Your task to perform on an android device: turn off notifications settings in the gmail app Image 0: 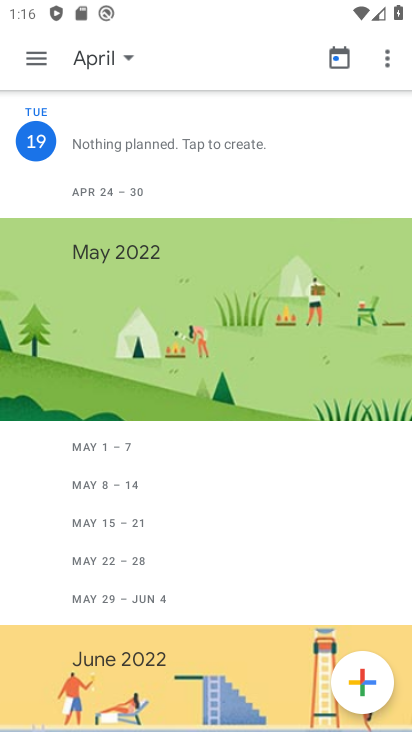
Step 0: press home button
Your task to perform on an android device: turn off notifications settings in the gmail app Image 1: 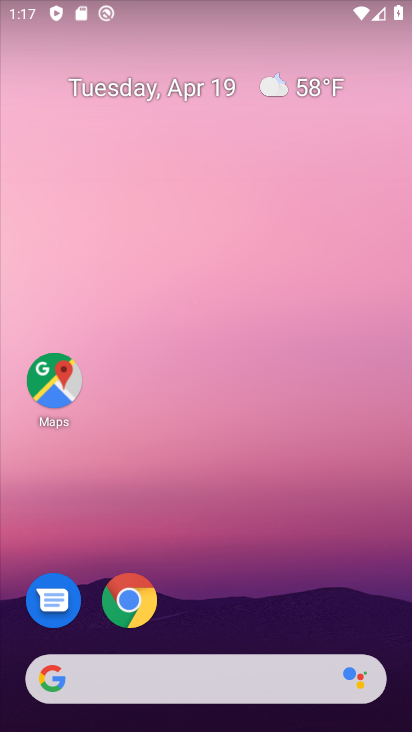
Step 1: drag from (175, 595) to (165, 59)
Your task to perform on an android device: turn off notifications settings in the gmail app Image 2: 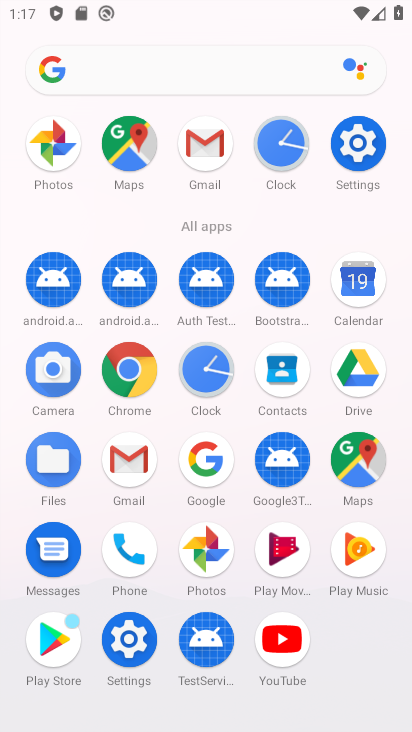
Step 2: click (111, 455)
Your task to perform on an android device: turn off notifications settings in the gmail app Image 3: 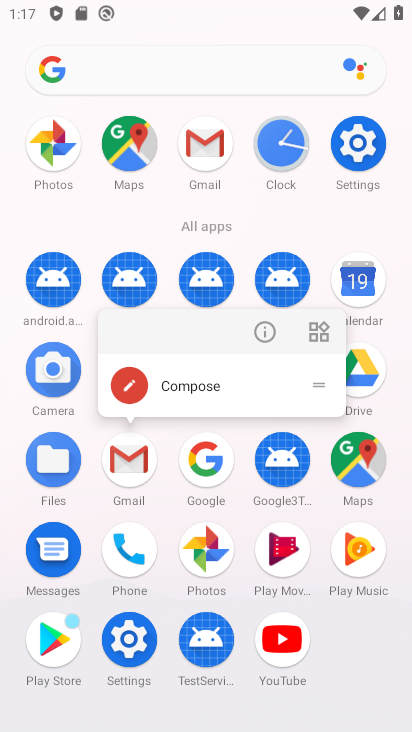
Step 3: click (111, 455)
Your task to perform on an android device: turn off notifications settings in the gmail app Image 4: 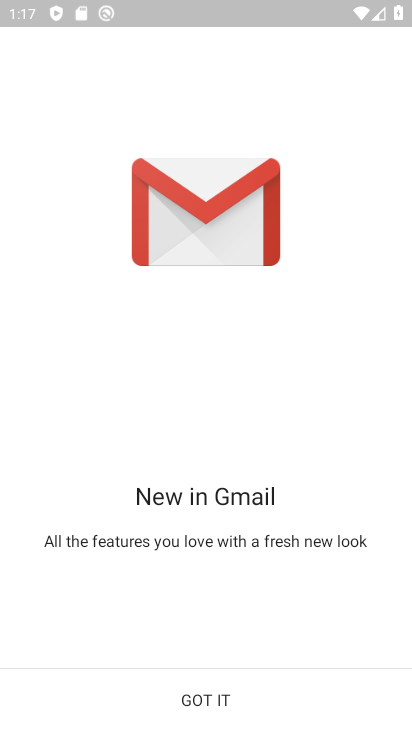
Step 4: click (191, 687)
Your task to perform on an android device: turn off notifications settings in the gmail app Image 5: 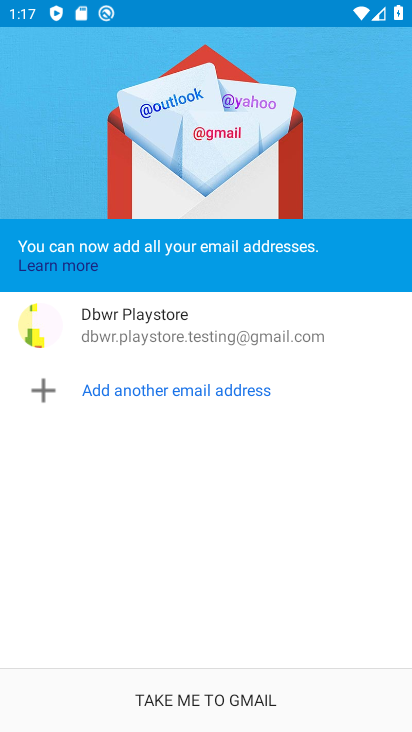
Step 5: click (205, 710)
Your task to perform on an android device: turn off notifications settings in the gmail app Image 6: 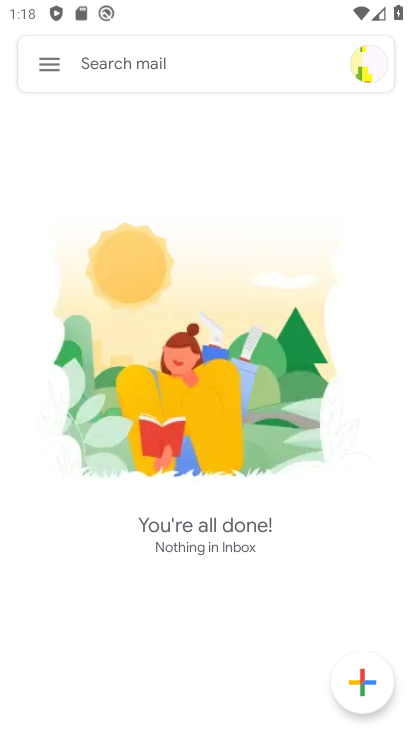
Step 6: click (54, 80)
Your task to perform on an android device: turn off notifications settings in the gmail app Image 7: 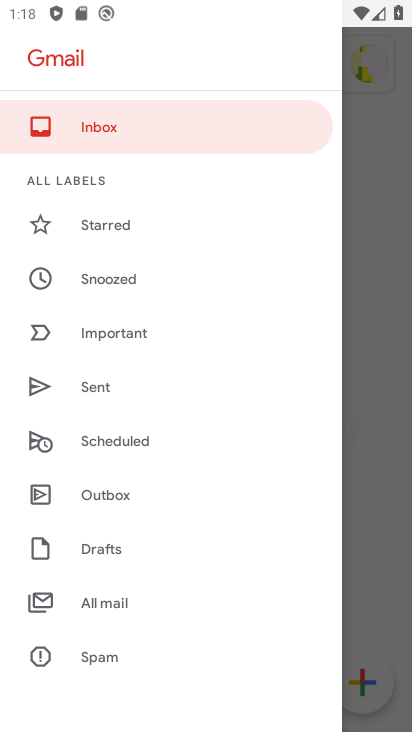
Step 7: drag from (212, 534) to (178, 240)
Your task to perform on an android device: turn off notifications settings in the gmail app Image 8: 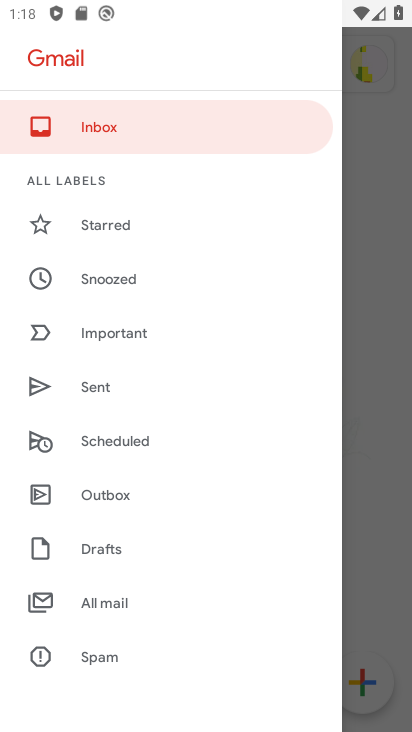
Step 8: drag from (113, 601) to (114, 123)
Your task to perform on an android device: turn off notifications settings in the gmail app Image 9: 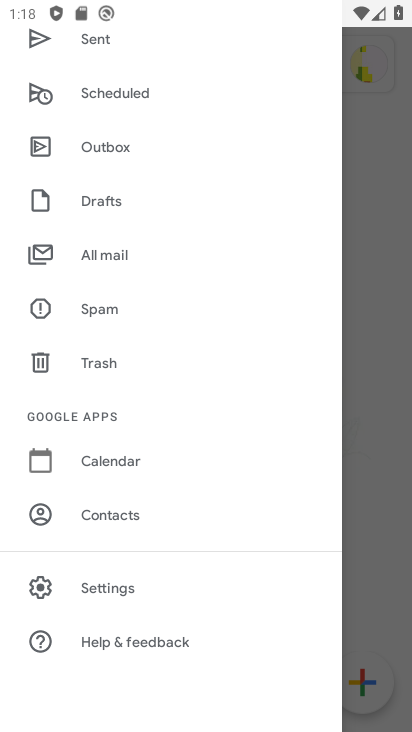
Step 9: click (99, 597)
Your task to perform on an android device: turn off notifications settings in the gmail app Image 10: 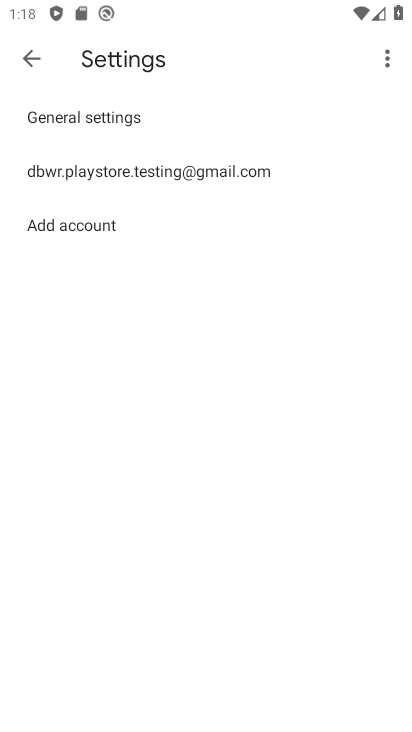
Step 10: click (93, 175)
Your task to perform on an android device: turn off notifications settings in the gmail app Image 11: 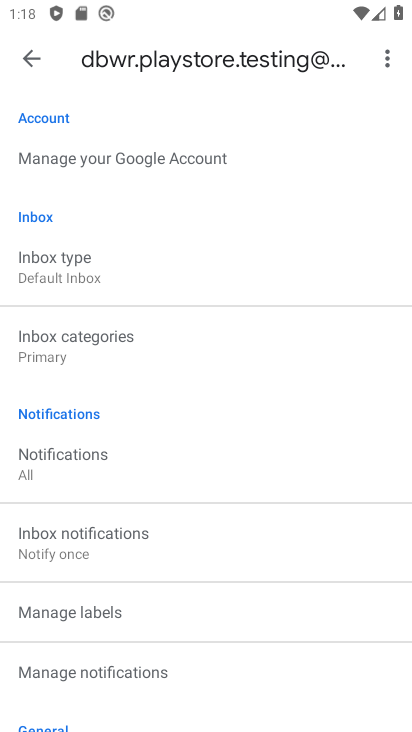
Step 11: click (126, 671)
Your task to perform on an android device: turn off notifications settings in the gmail app Image 12: 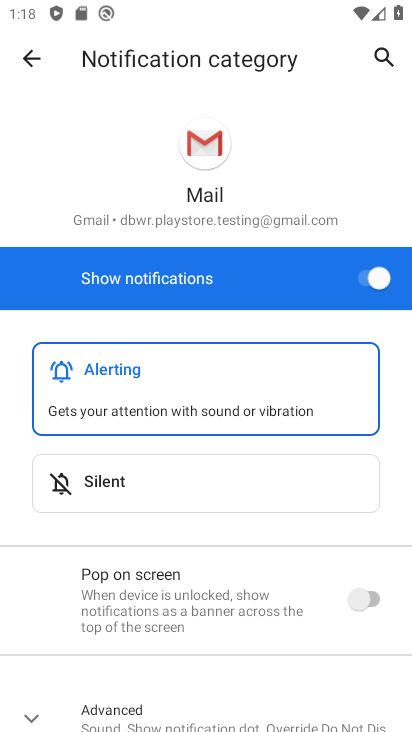
Step 12: click (367, 289)
Your task to perform on an android device: turn off notifications settings in the gmail app Image 13: 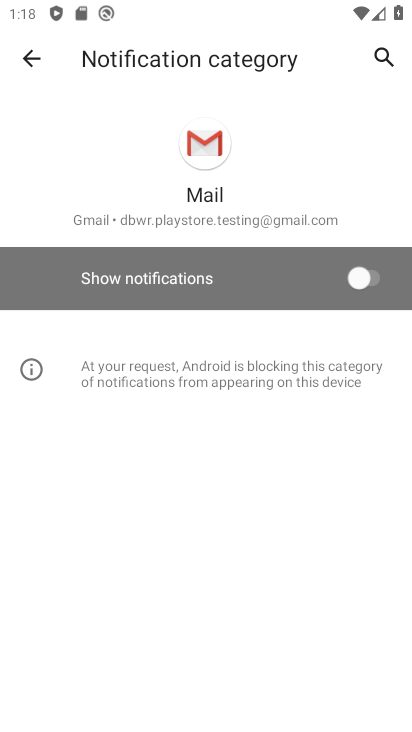
Step 13: task complete